Your task to perform on an android device: toggle airplane mode Image 0: 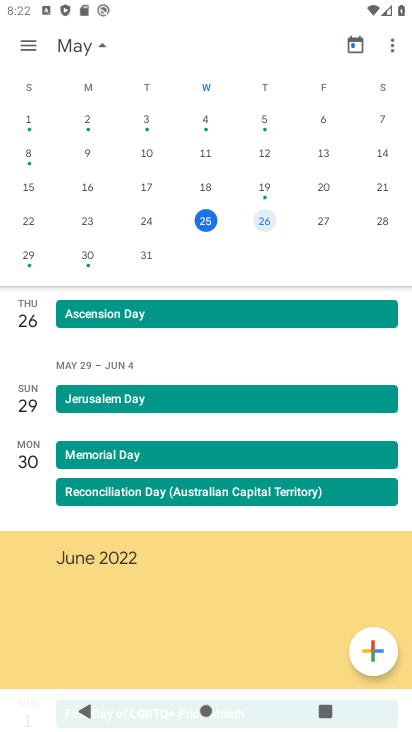
Step 0: press home button
Your task to perform on an android device: toggle airplane mode Image 1: 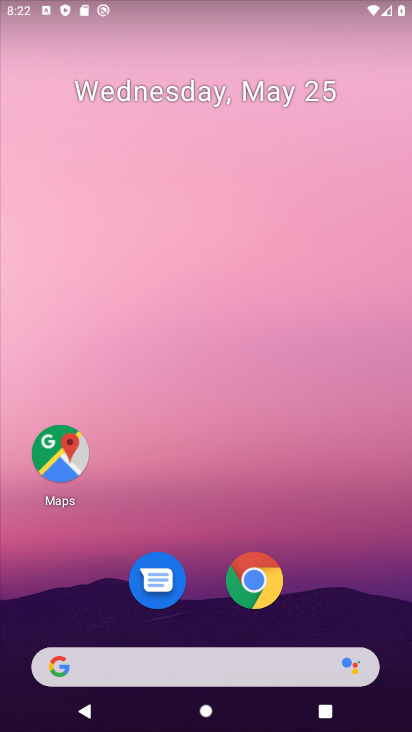
Step 1: drag from (290, 11) to (199, 480)
Your task to perform on an android device: toggle airplane mode Image 2: 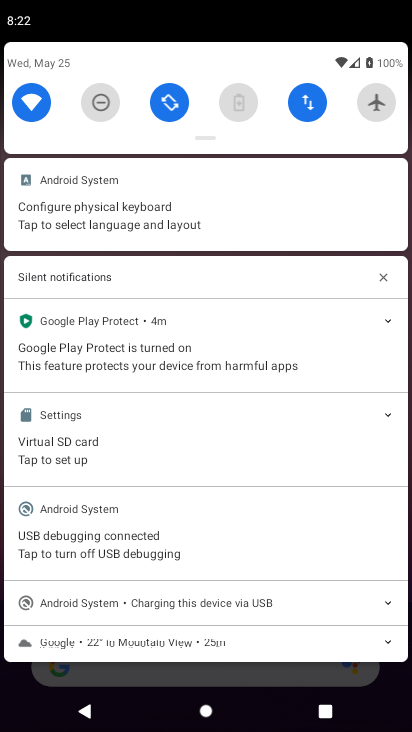
Step 2: click (382, 104)
Your task to perform on an android device: toggle airplane mode Image 3: 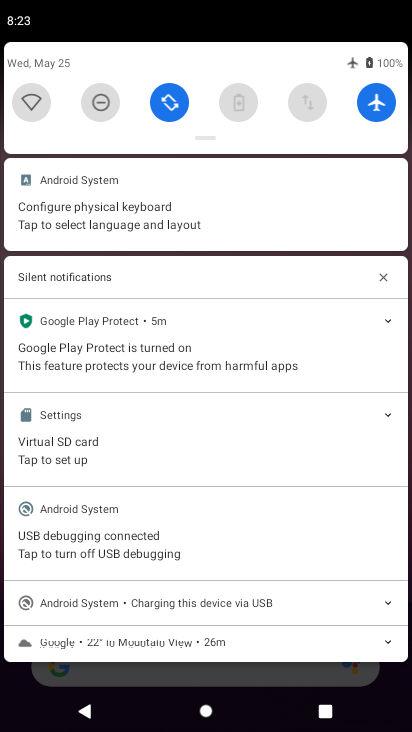
Step 3: task complete